Your task to perform on an android device: Open Google Chrome and click the shortcut for Amazon.com Image 0: 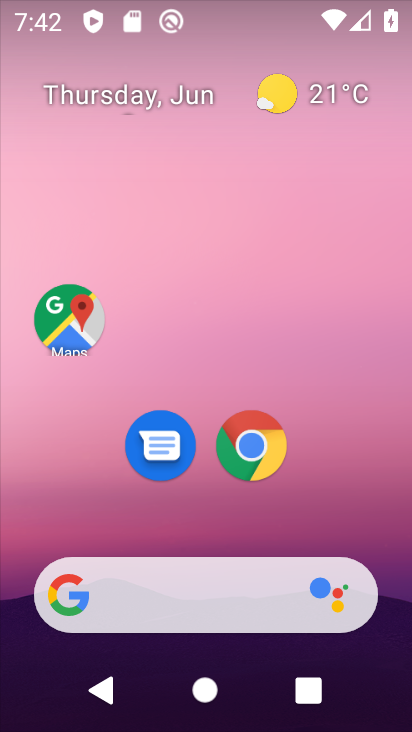
Step 0: click (250, 468)
Your task to perform on an android device: Open Google Chrome and click the shortcut for Amazon.com Image 1: 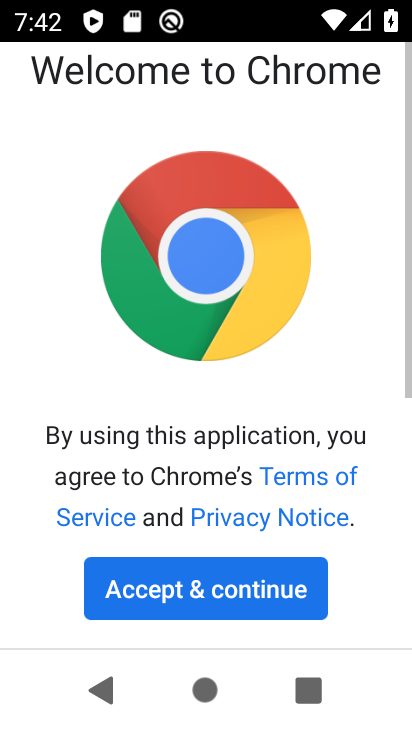
Step 1: click (221, 615)
Your task to perform on an android device: Open Google Chrome and click the shortcut for Amazon.com Image 2: 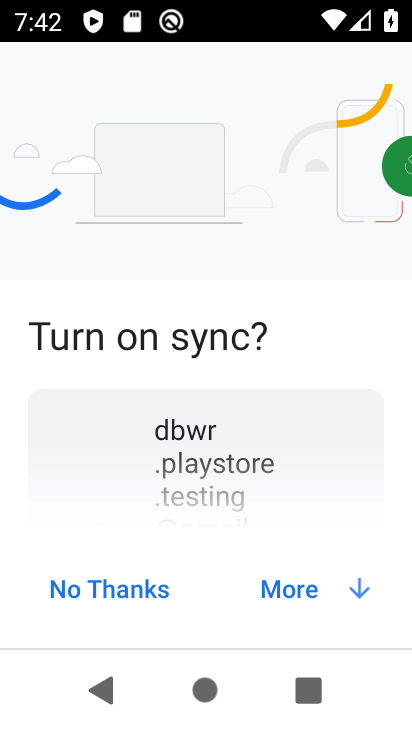
Step 2: click (278, 594)
Your task to perform on an android device: Open Google Chrome and click the shortcut for Amazon.com Image 3: 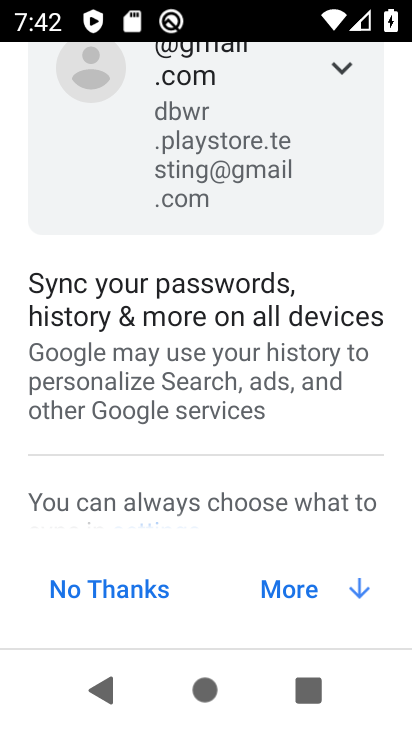
Step 3: click (288, 589)
Your task to perform on an android device: Open Google Chrome and click the shortcut for Amazon.com Image 4: 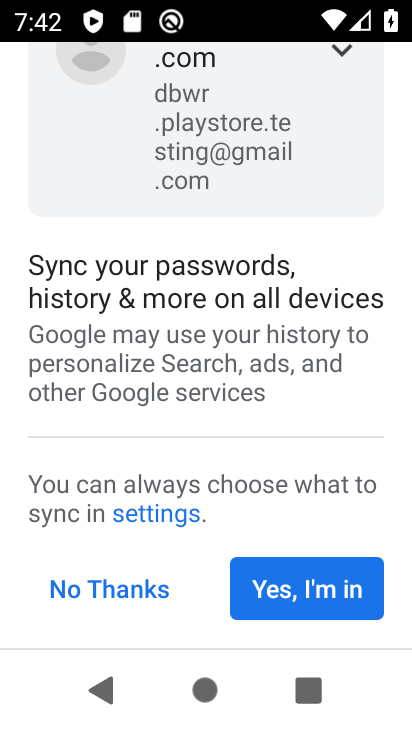
Step 4: click (288, 589)
Your task to perform on an android device: Open Google Chrome and click the shortcut for Amazon.com Image 5: 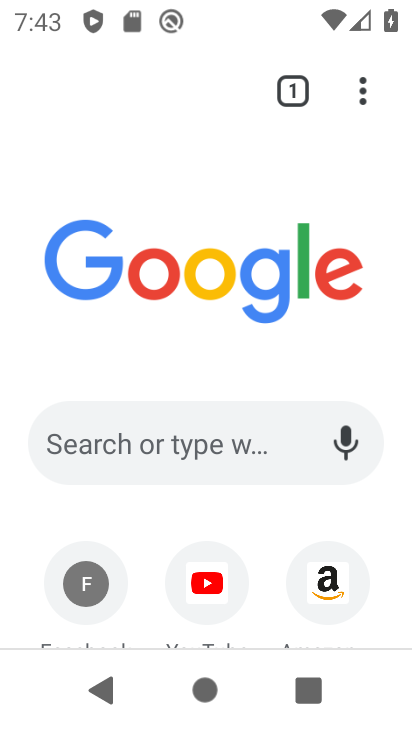
Step 5: drag from (260, 541) to (316, 296)
Your task to perform on an android device: Open Google Chrome and click the shortcut for Amazon.com Image 6: 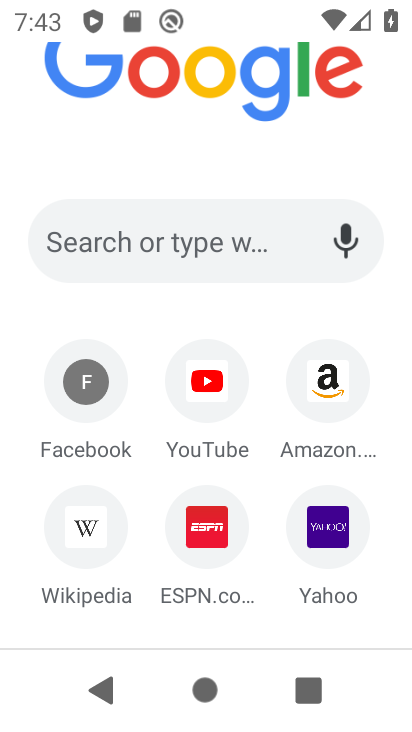
Step 6: click (333, 391)
Your task to perform on an android device: Open Google Chrome and click the shortcut for Amazon.com Image 7: 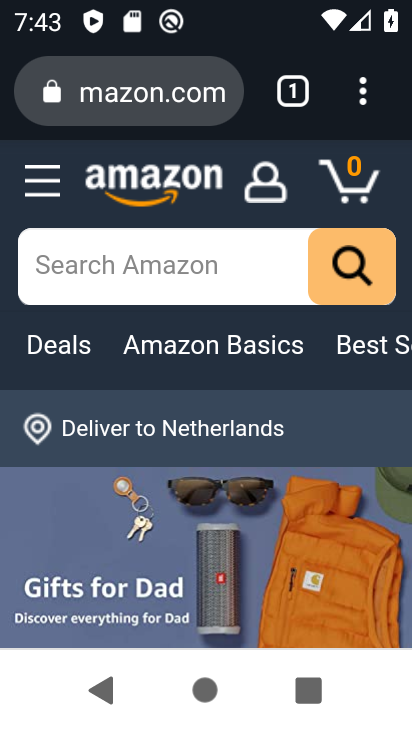
Step 7: task complete